Your task to perform on an android device: turn on translation in the chrome app Image 0: 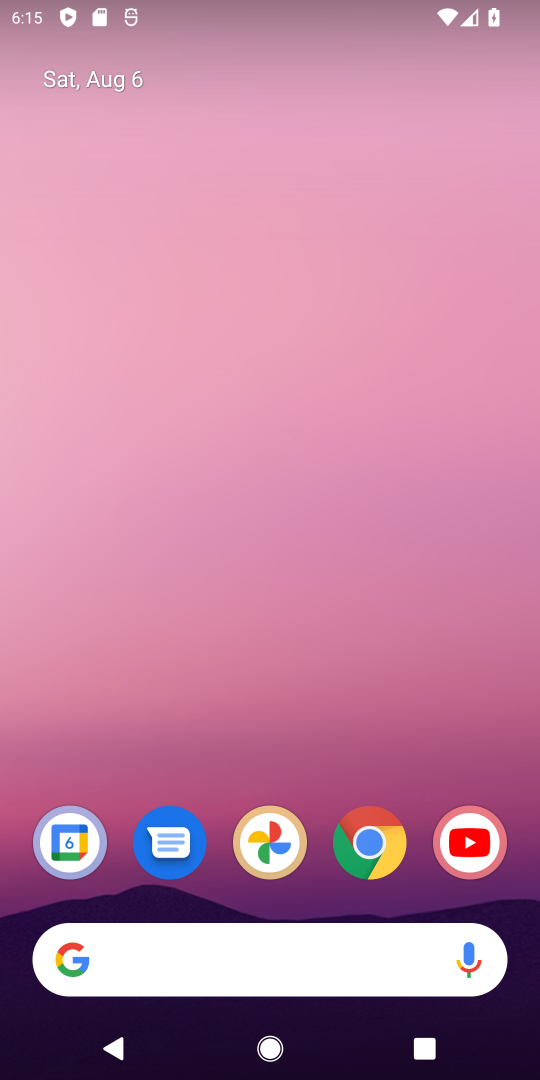
Step 0: click (371, 842)
Your task to perform on an android device: turn on translation in the chrome app Image 1: 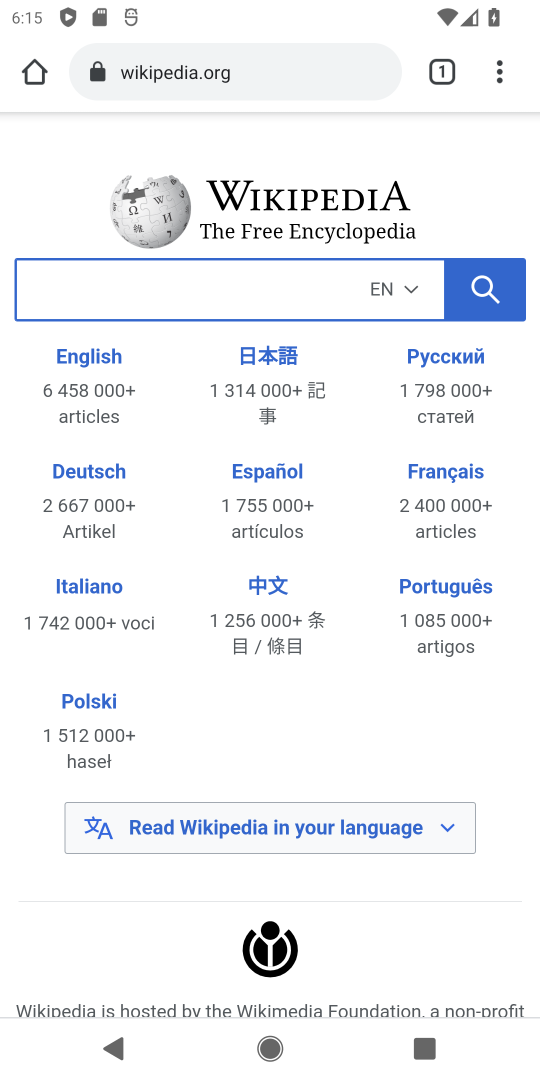
Step 1: click (498, 79)
Your task to perform on an android device: turn on translation in the chrome app Image 2: 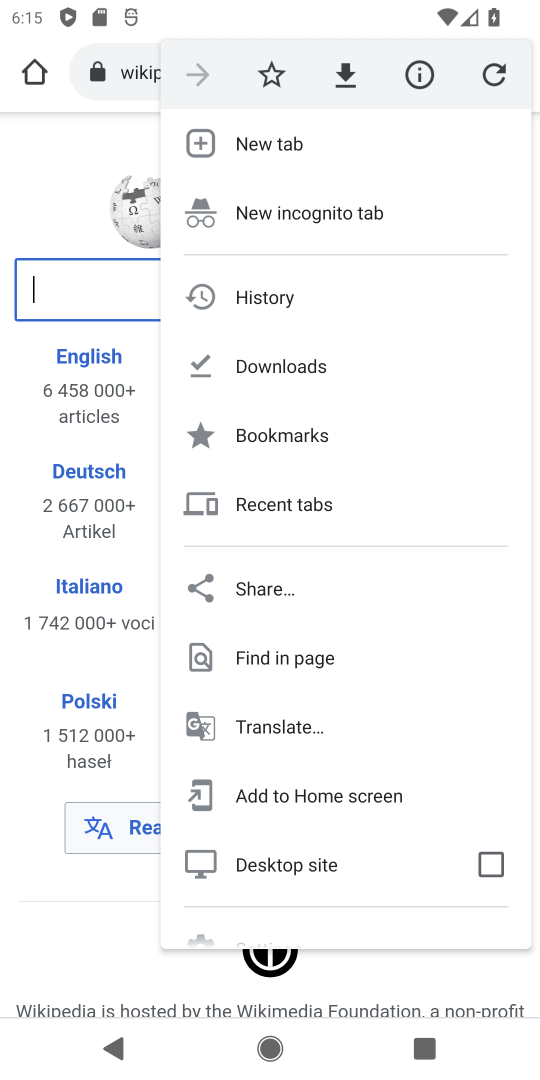
Step 2: drag from (284, 681) to (351, 537)
Your task to perform on an android device: turn on translation in the chrome app Image 3: 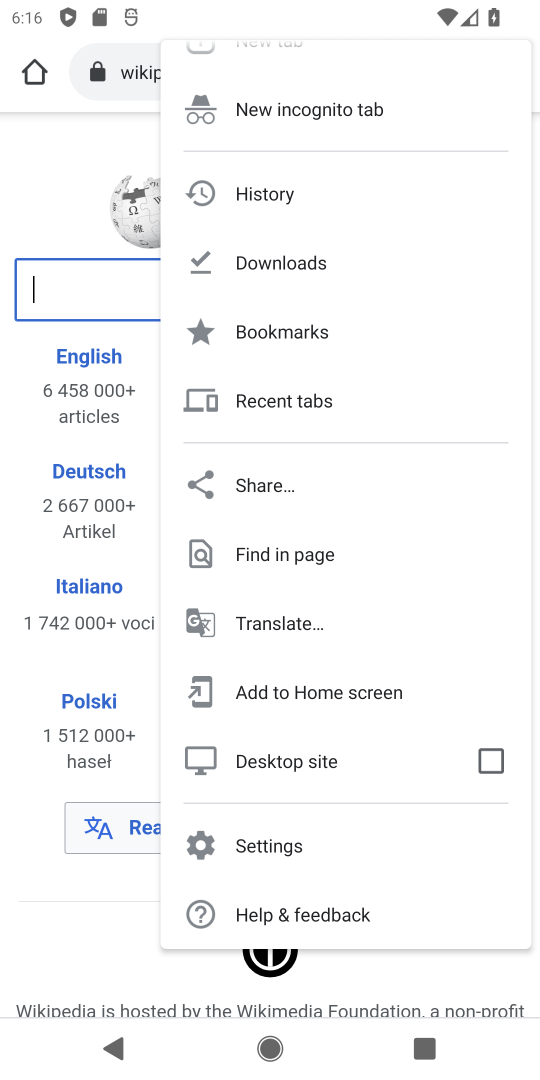
Step 3: click (282, 845)
Your task to perform on an android device: turn on translation in the chrome app Image 4: 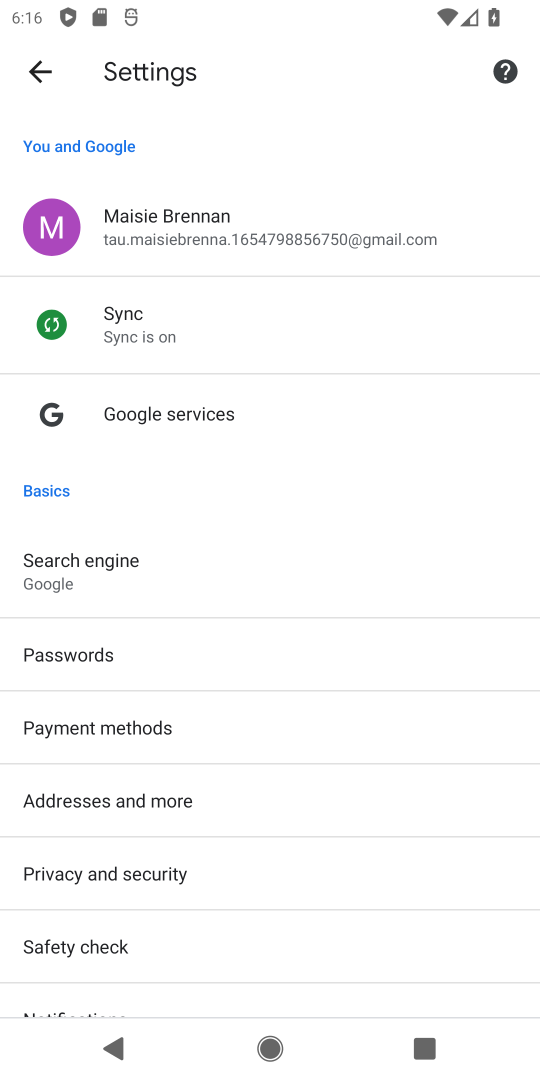
Step 4: drag from (176, 751) to (304, 590)
Your task to perform on an android device: turn on translation in the chrome app Image 5: 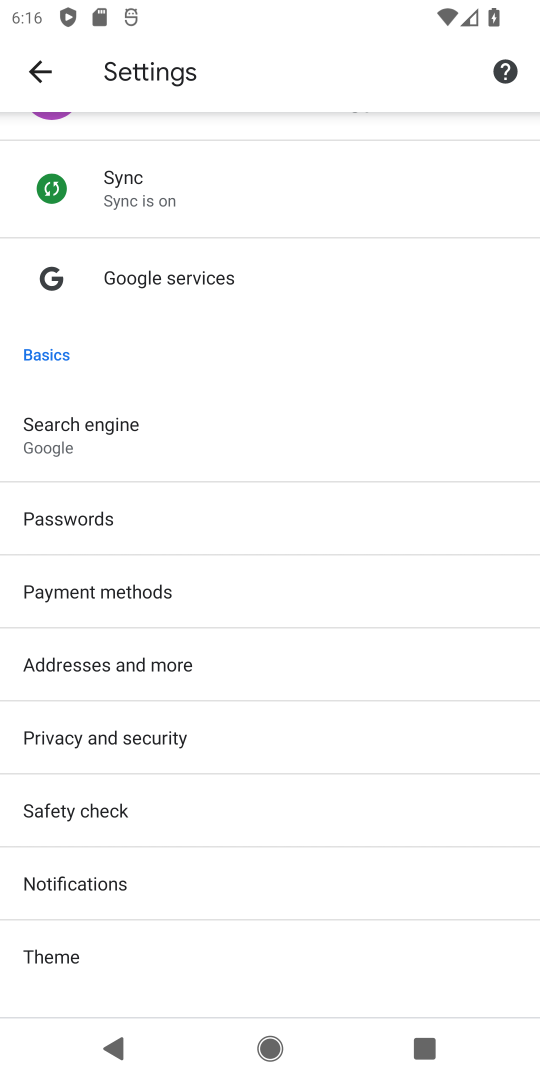
Step 5: drag from (160, 809) to (259, 647)
Your task to perform on an android device: turn on translation in the chrome app Image 6: 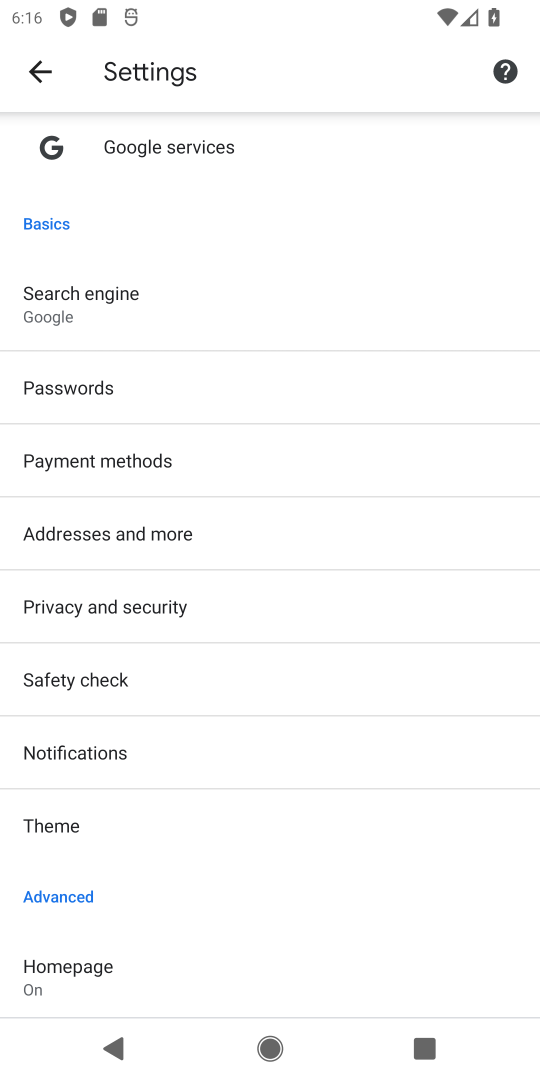
Step 6: drag from (152, 824) to (238, 683)
Your task to perform on an android device: turn on translation in the chrome app Image 7: 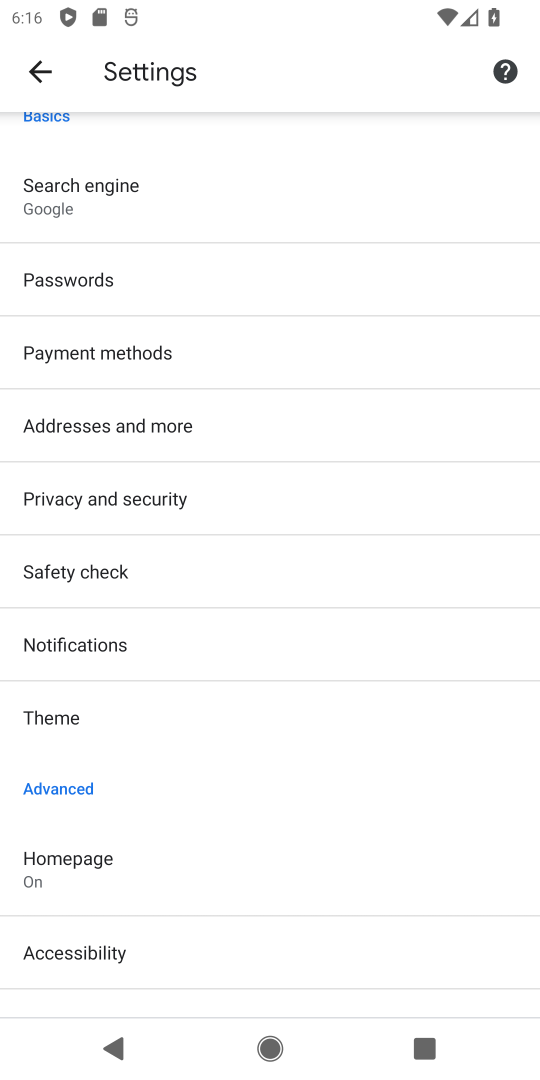
Step 7: drag from (132, 852) to (273, 656)
Your task to perform on an android device: turn on translation in the chrome app Image 8: 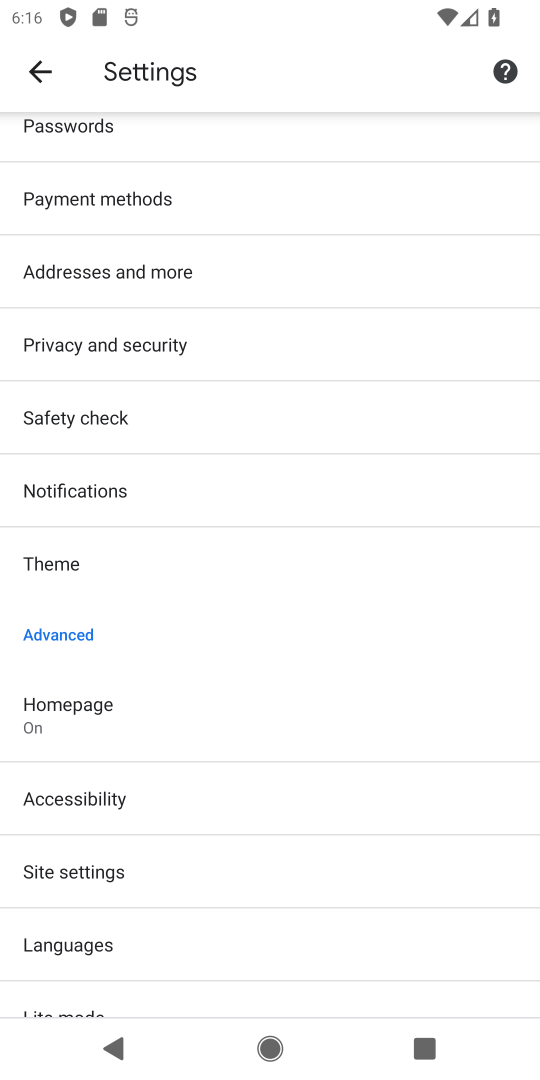
Step 8: drag from (137, 867) to (235, 724)
Your task to perform on an android device: turn on translation in the chrome app Image 9: 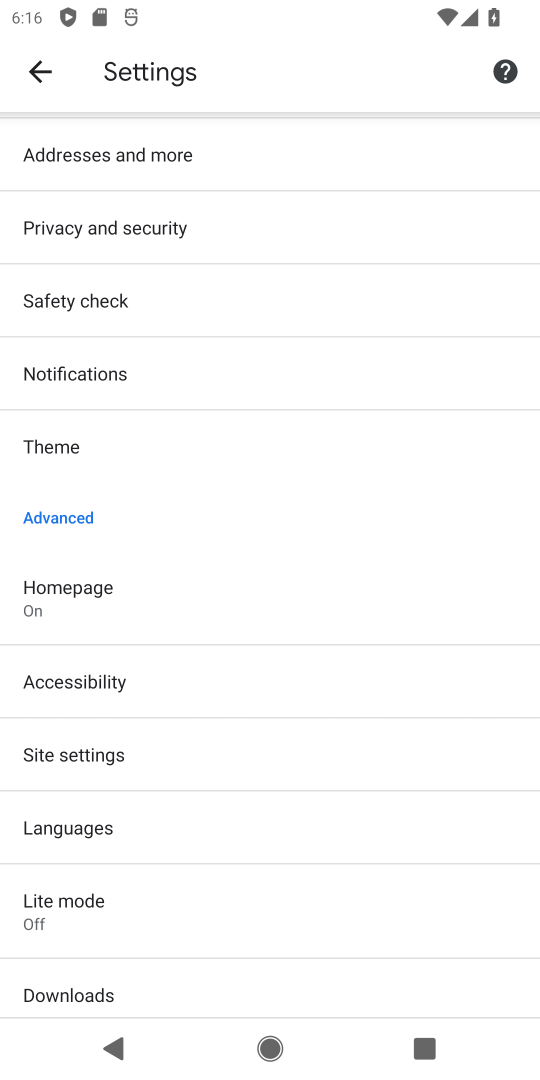
Step 9: click (100, 829)
Your task to perform on an android device: turn on translation in the chrome app Image 10: 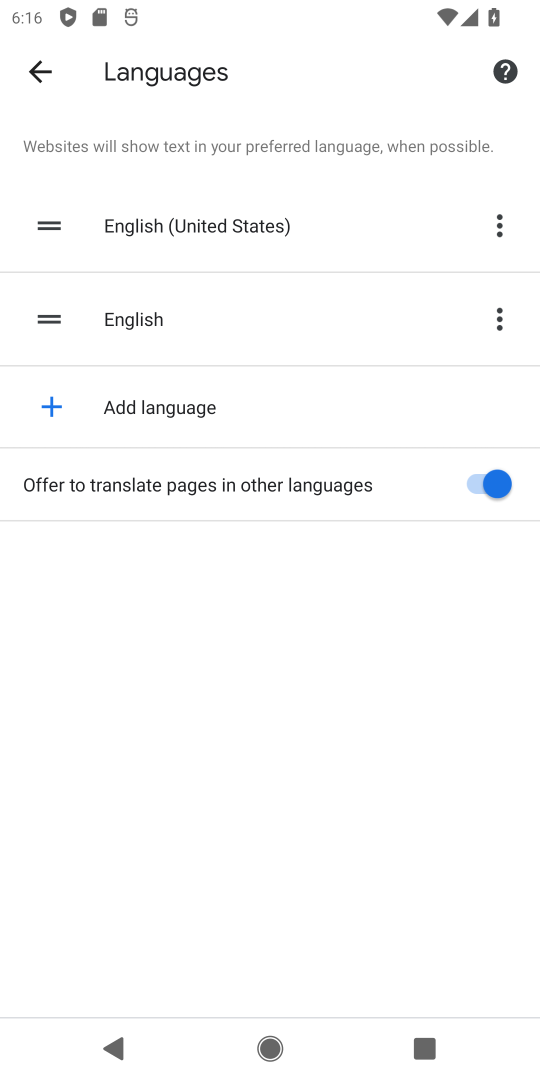
Step 10: task complete